Your task to perform on an android device: snooze an email in the gmail app Image 0: 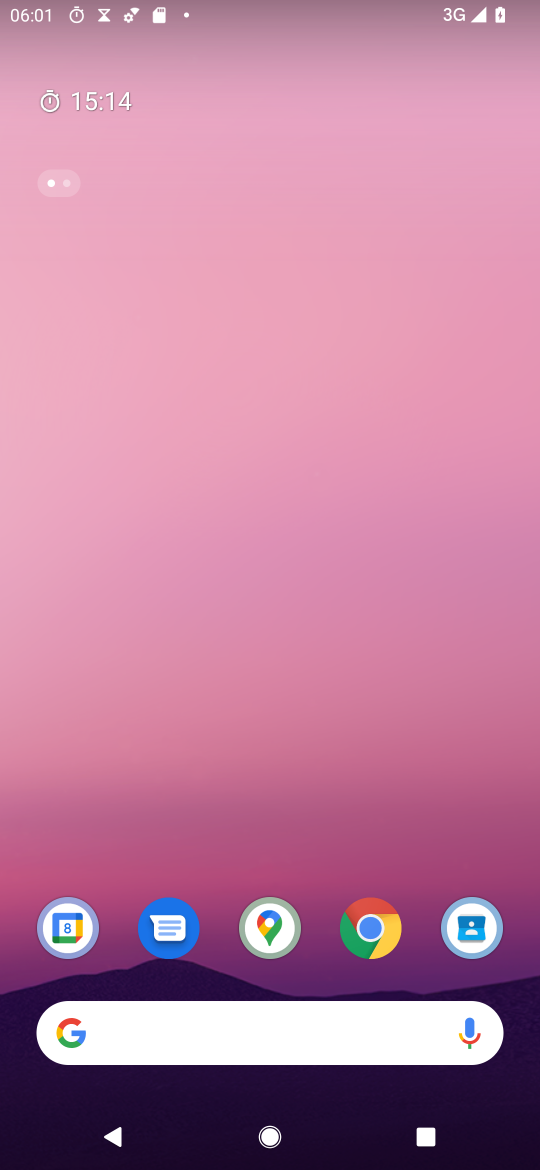
Step 0: drag from (236, 891) to (255, 9)
Your task to perform on an android device: snooze an email in the gmail app Image 1: 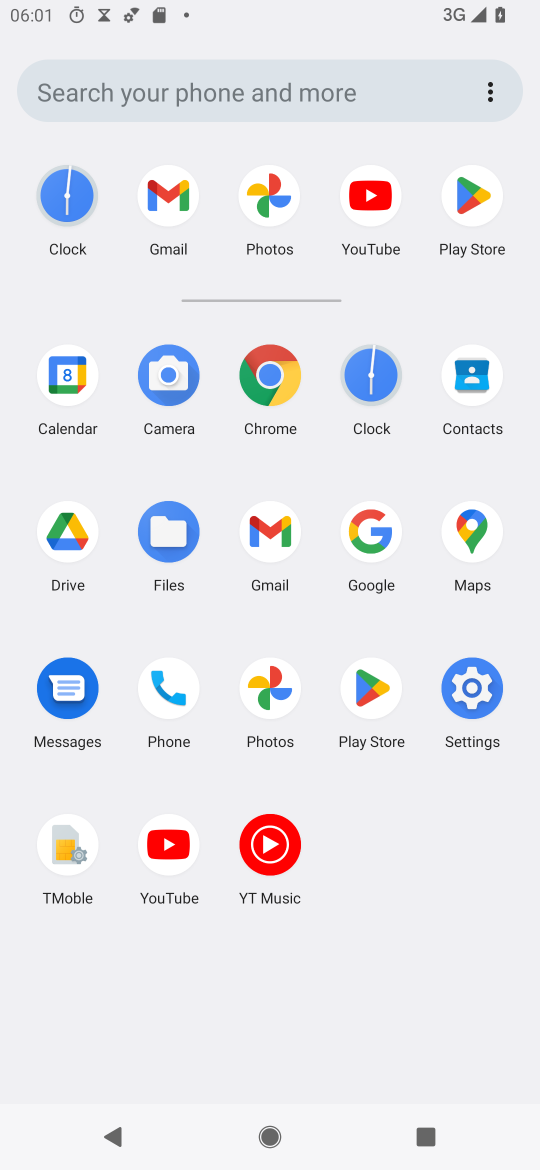
Step 1: click (271, 555)
Your task to perform on an android device: snooze an email in the gmail app Image 2: 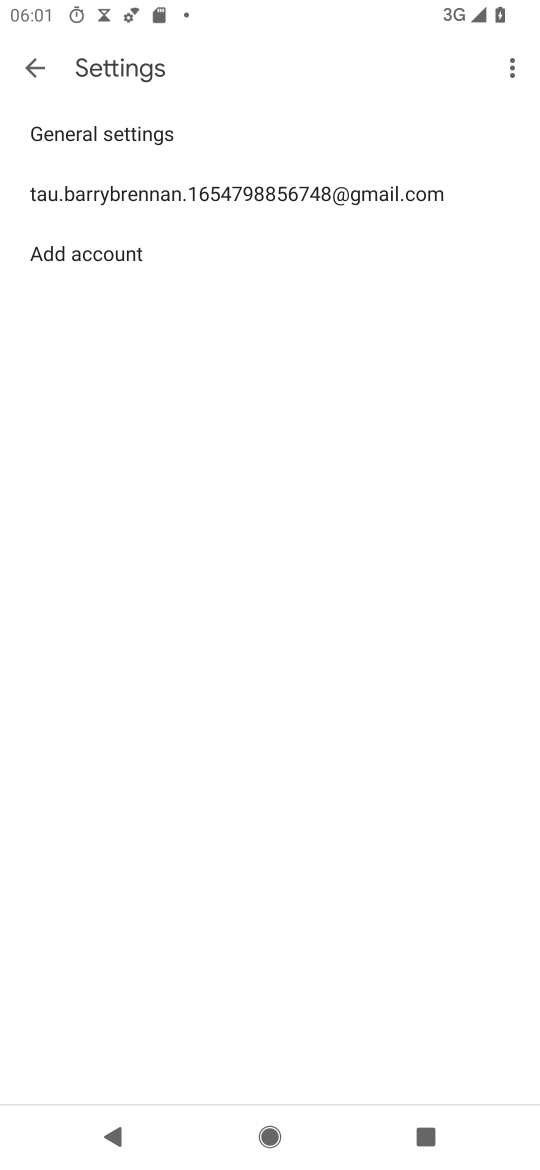
Step 2: click (45, 64)
Your task to perform on an android device: snooze an email in the gmail app Image 3: 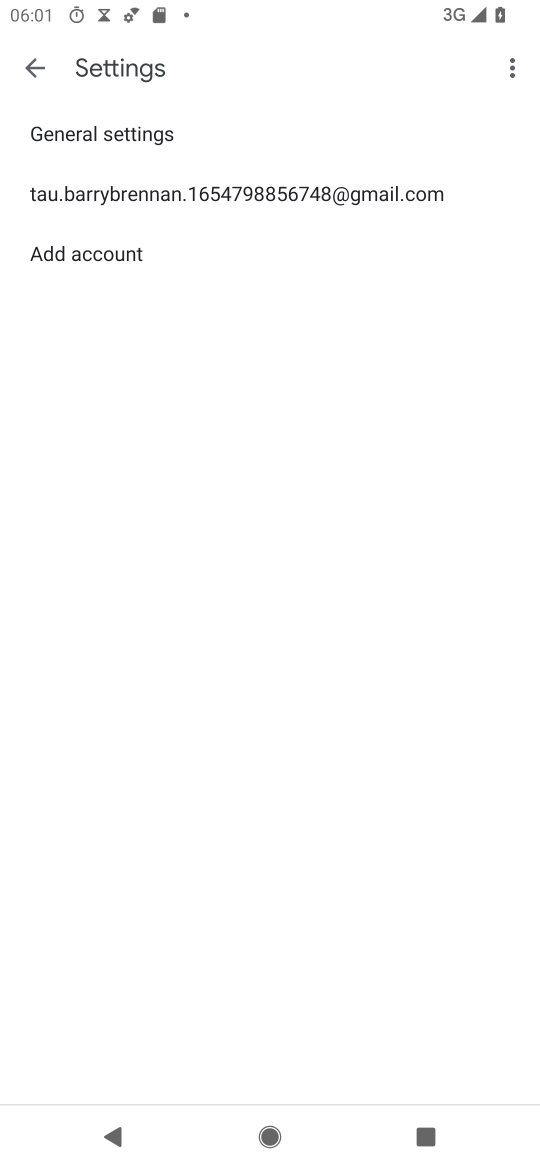
Step 3: click (30, 71)
Your task to perform on an android device: snooze an email in the gmail app Image 4: 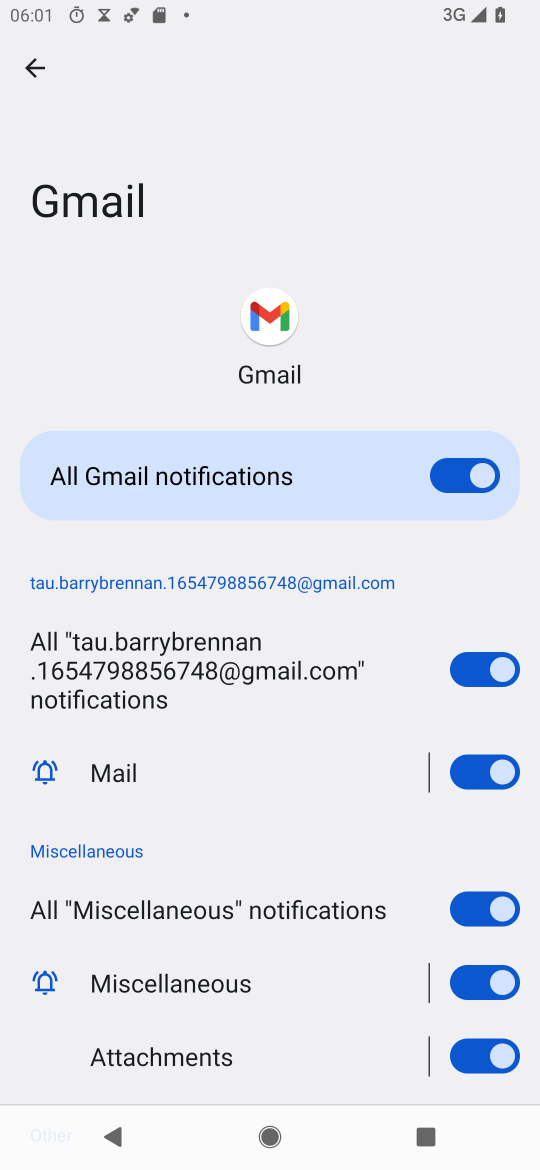
Step 4: click (36, 63)
Your task to perform on an android device: snooze an email in the gmail app Image 5: 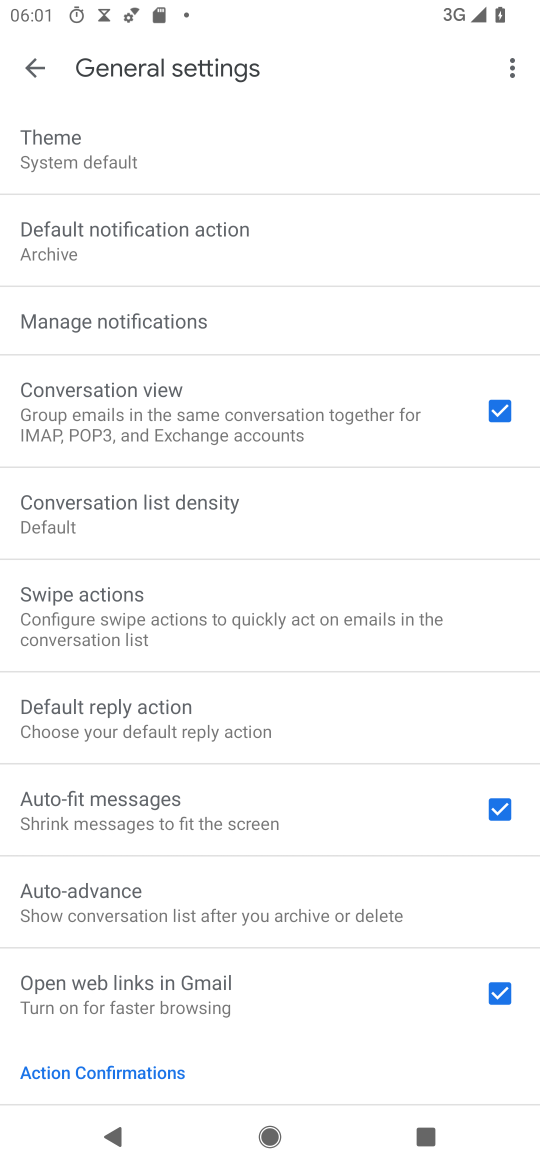
Step 5: click (41, 75)
Your task to perform on an android device: snooze an email in the gmail app Image 6: 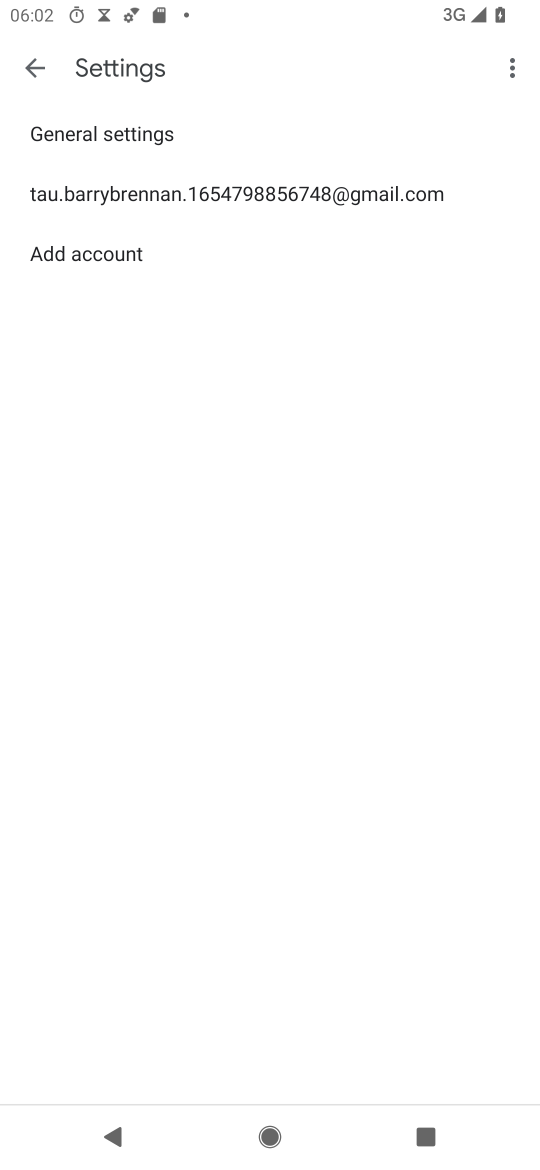
Step 6: click (42, 70)
Your task to perform on an android device: snooze an email in the gmail app Image 7: 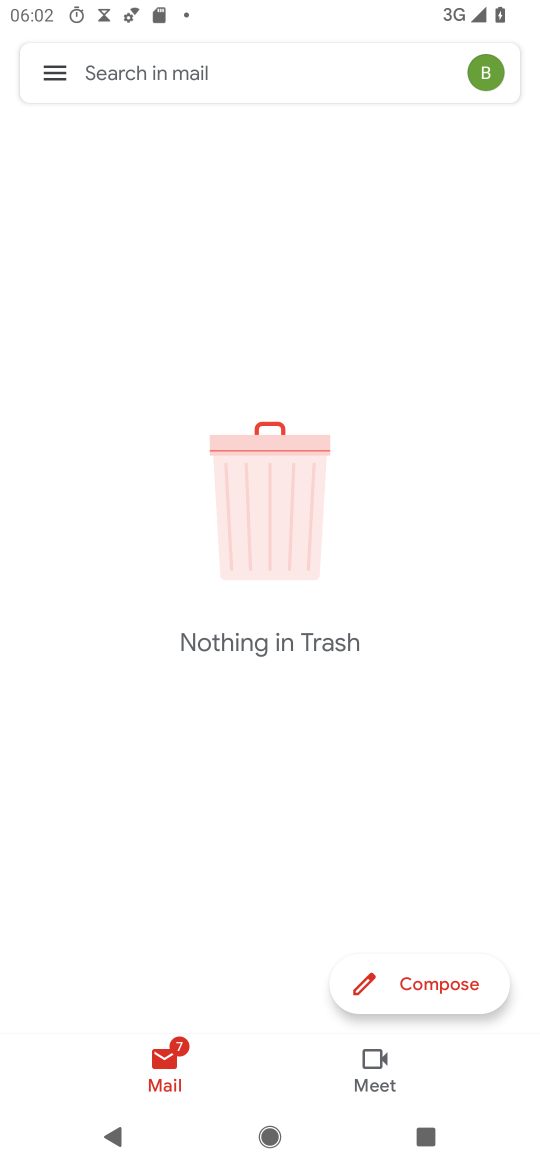
Step 7: click (39, 75)
Your task to perform on an android device: snooze an email in the gmail app Image 8: 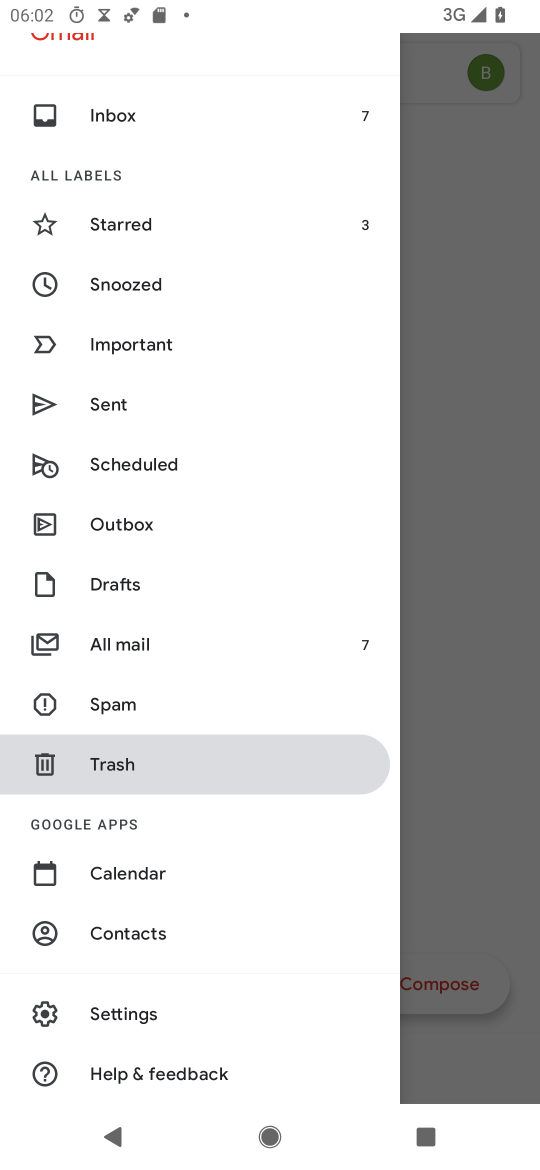
Step 8: click (168, 110)
Your task to perform on an android device: snooze an email in the gmail app Image 9: 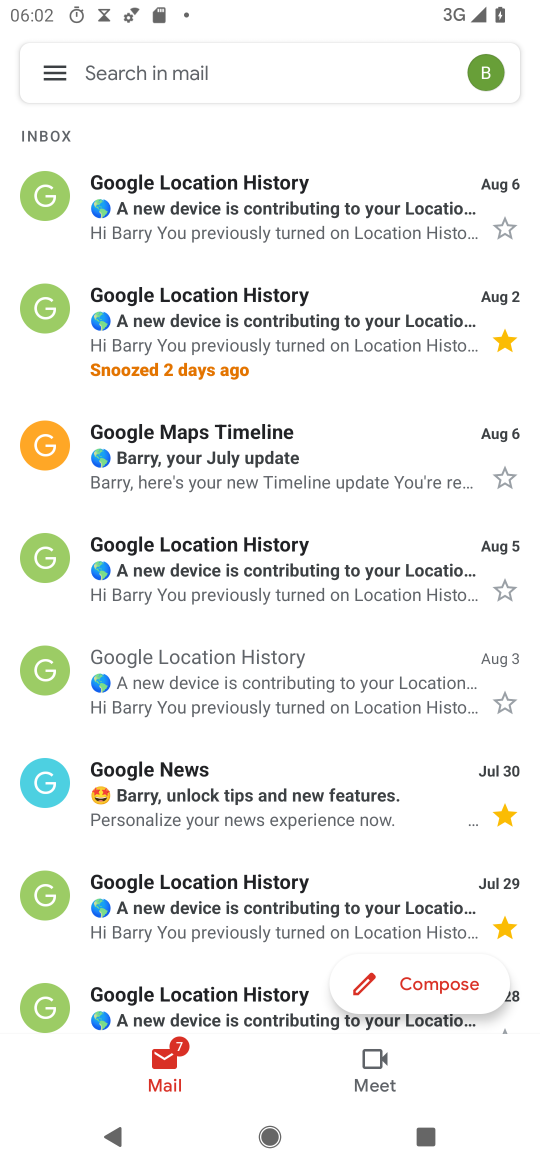
Step 9: click (46, 204)
Your task to perform on an android device: snooze an email in the gmail app Image 10: 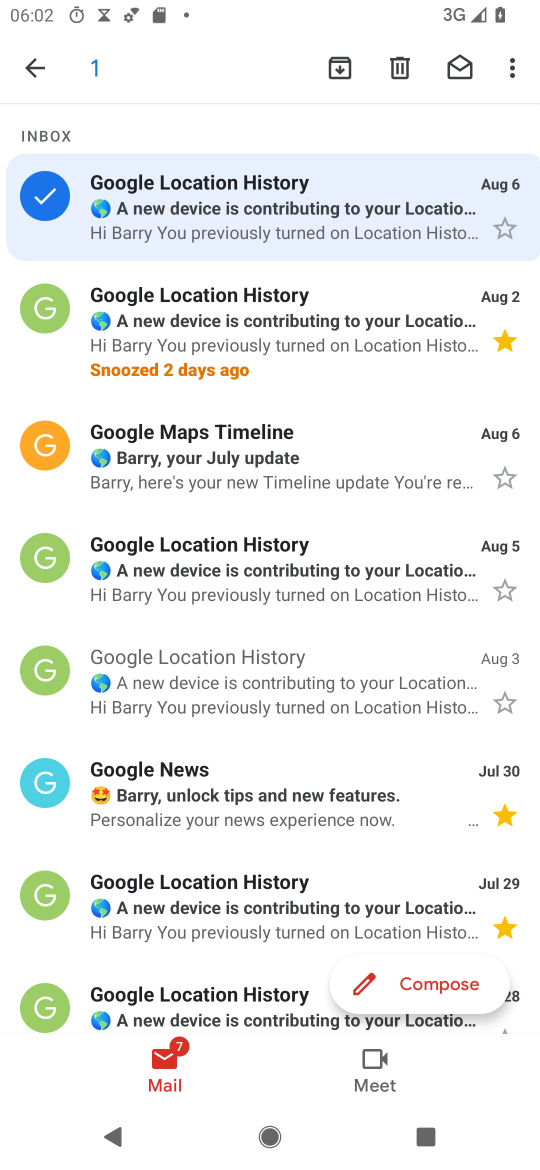
Step 10: click (513, 62)
Your task to perform on an android device: snooze an email in the gmail app Image 11: 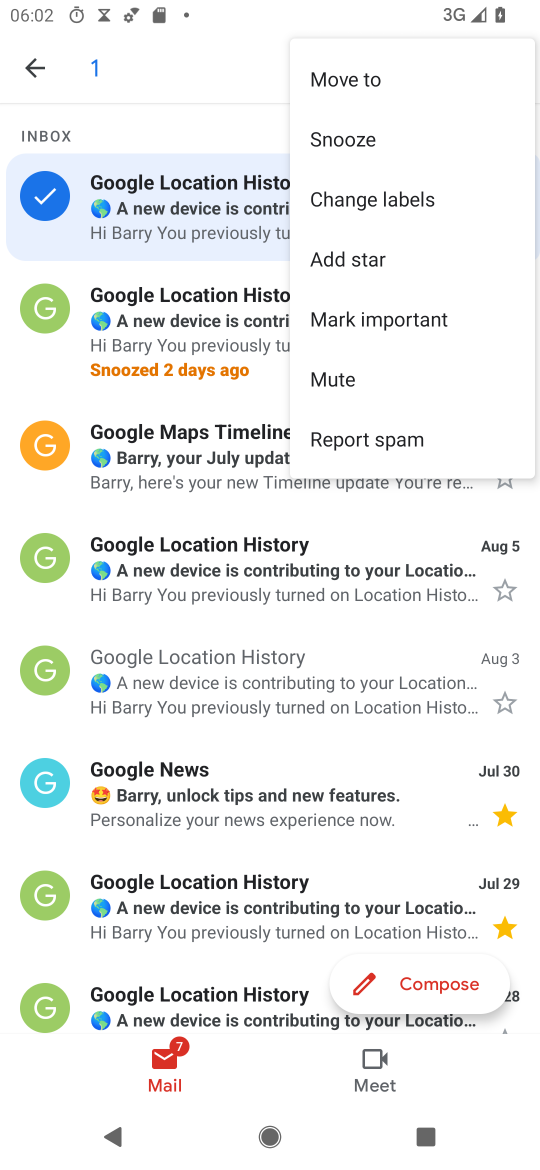
Step 11: click (369, 138)
Your task to perform on an android device: snooze an email in the gmail app Image 12: 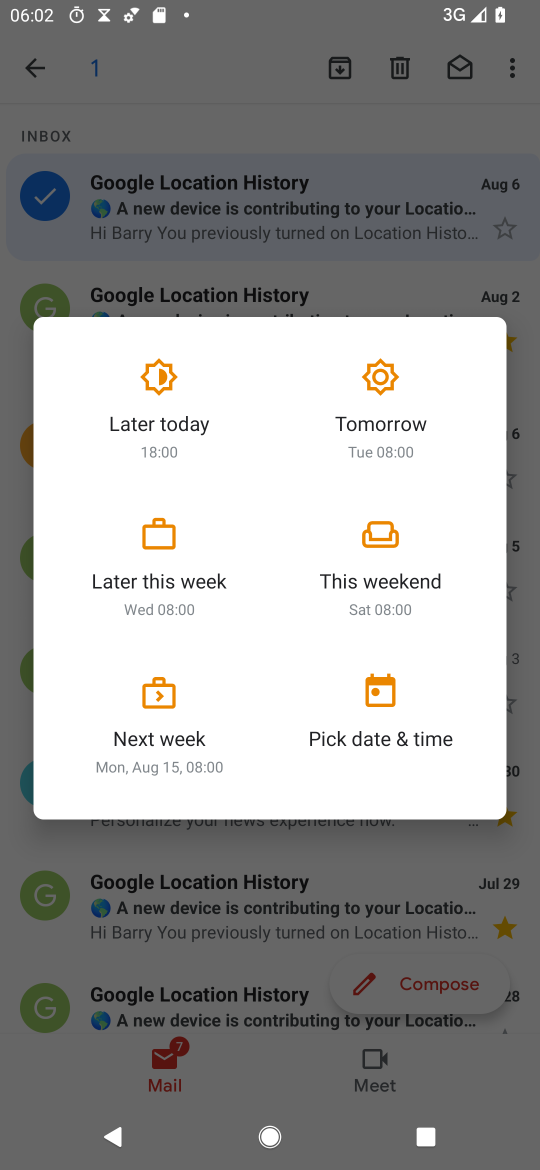
Step 12: click (170, 401)
Your task to perform on an android device: snooze an email in the gmail app Image 13: 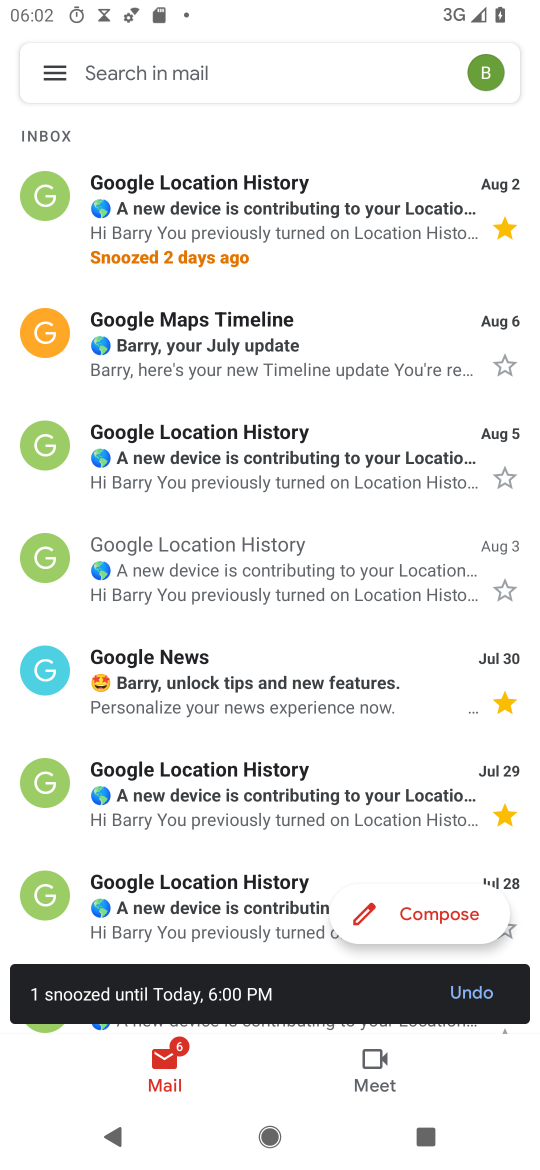
Step 13: task complete